Your task to perform on an android device: Open ESPN.com Image 0: 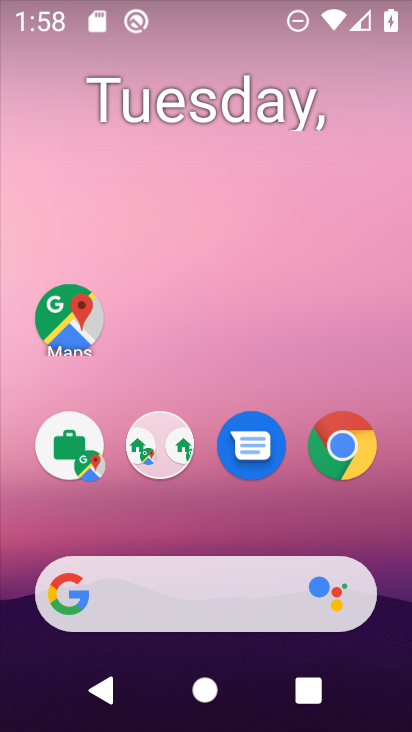
Step 0: click (334, 455)
Your task to perform on an android device: Open ESPN.com Image 1: 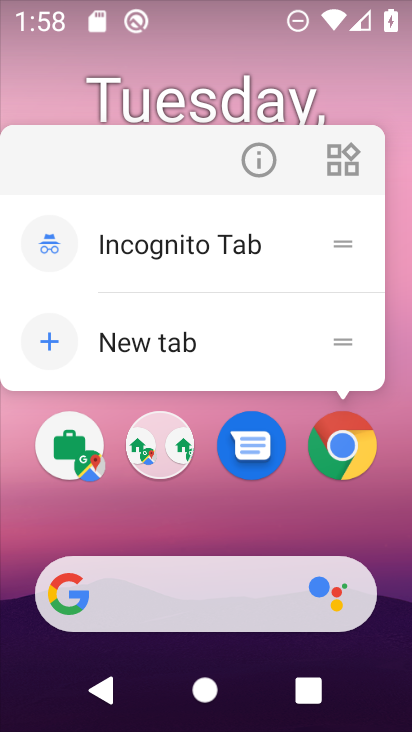
Step 1: click (176, 319)
Your task to perform on an android device: Open ESPN.com Image 2: 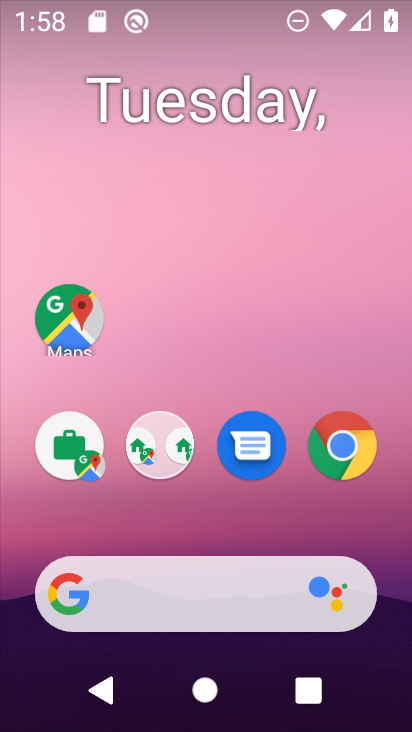
Step 2: click (345, 453)
Your task to perform on an android device: Open ESPN.com Image 3: 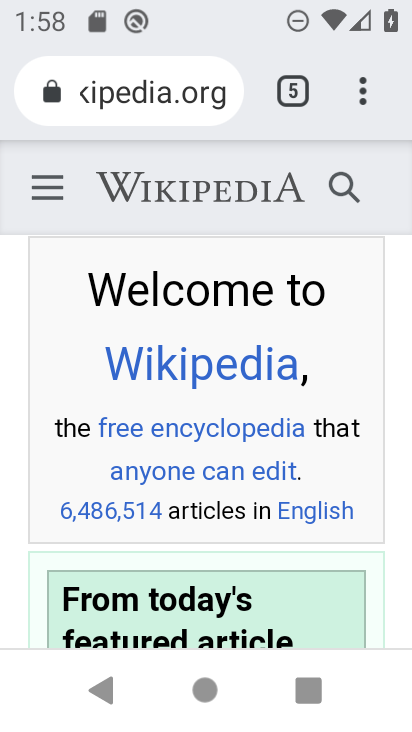
Step 3: click (286, 108)
Your task to perform on an android device: Open ESPN.com Image 4: 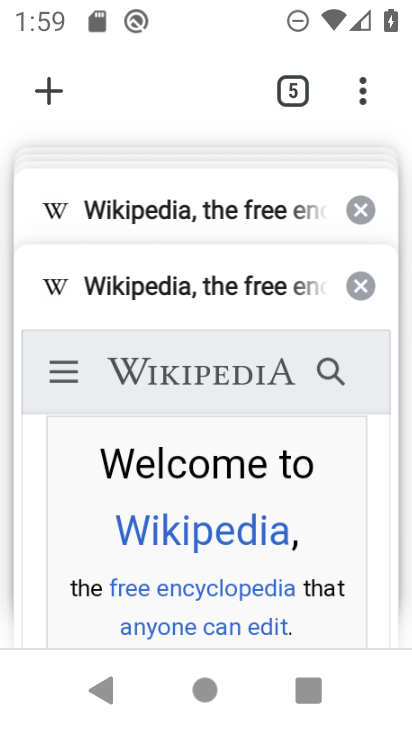
Step 4: click (45, 91)
Your task to perform on an android device: Open ESPN.com Image 5: 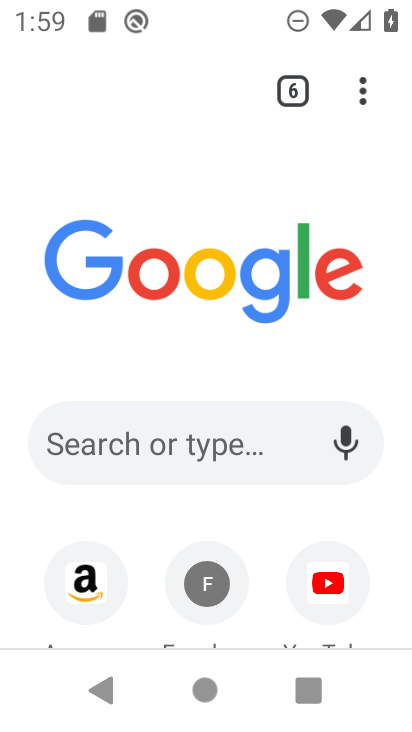
Step 5: click (156, 432)
Your task to perform on an android device: Open ESPN.com Image 6: 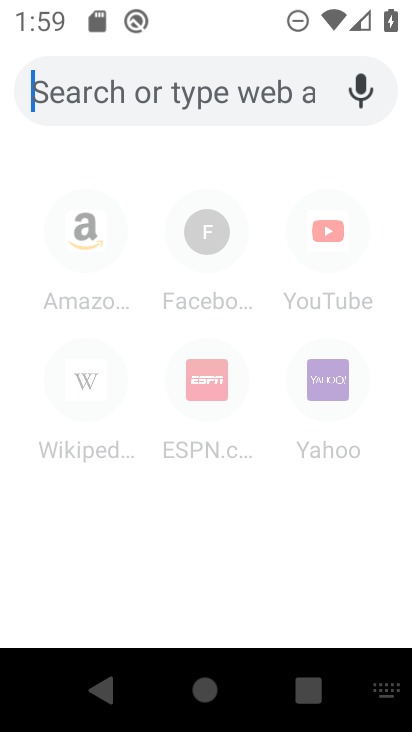
Step 6: type "ESPN.com"
Your task to perform on an android device: Open ESPN.com Image 7: 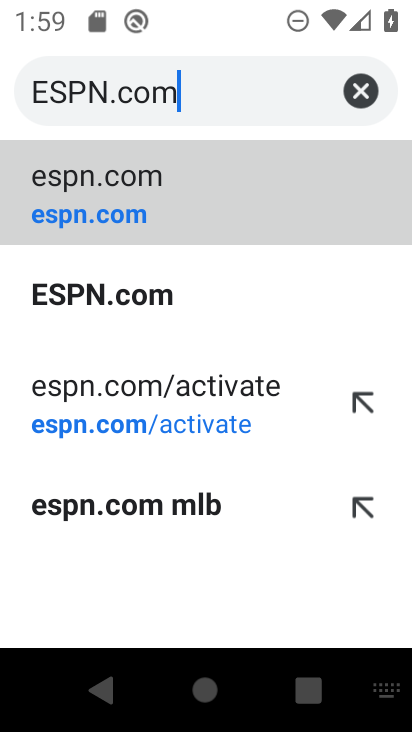
Step 7: click (188, 233)
Your task to perform on an android device: Open ESPN.com Image 8: 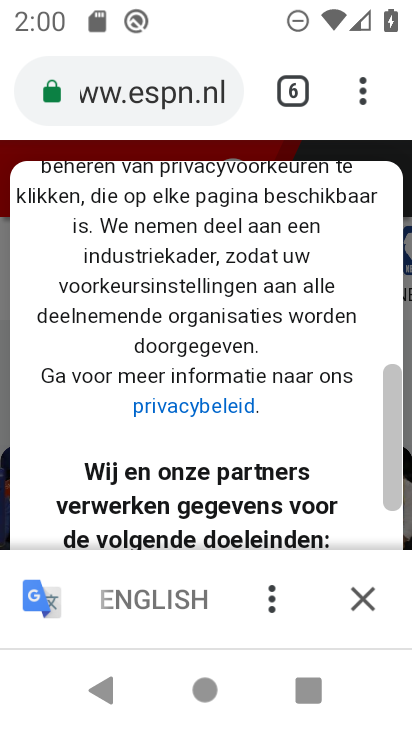
Step 8: task complete